Your task to perform on an android device: turn on sleep mode Image 0: 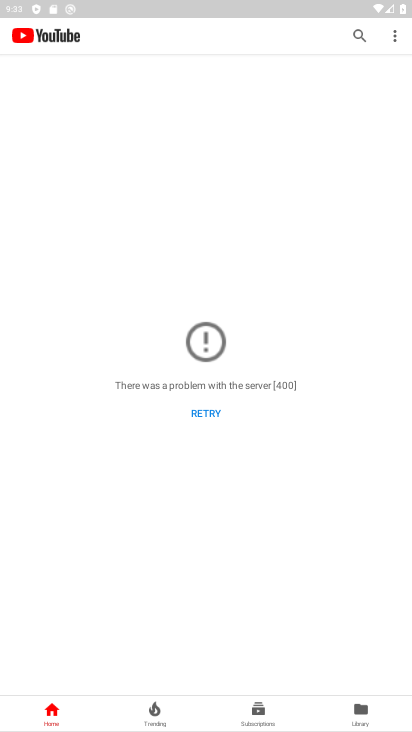
Step 0: press home button
Your task to perform on an android device: turn on sleep mode Image 1: 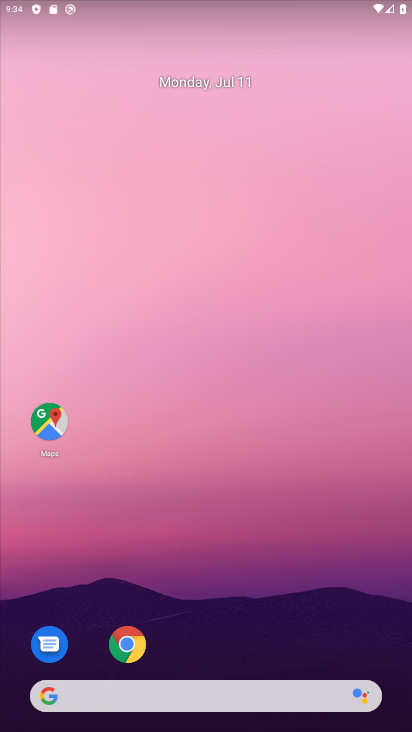
Step 1: drag from (259, 607) to (291, 111)
Your task to perform on an android device: turn on sleep mode Image 2: 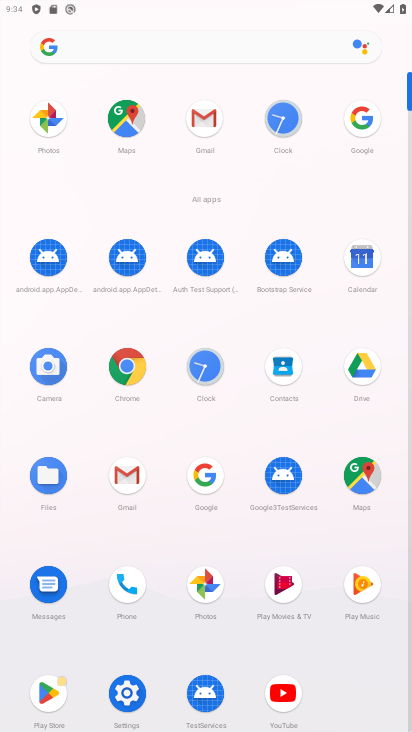
Step 2: click (133, 687)
Your task to perform on an android device: turn on sleep mode Image 3: 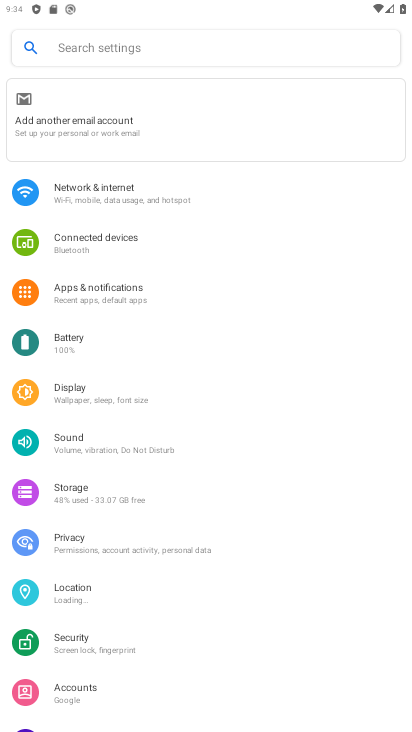
Step 3: click (120, 393)
Your task to perform on an android device: turn on sleep mode Image 4: 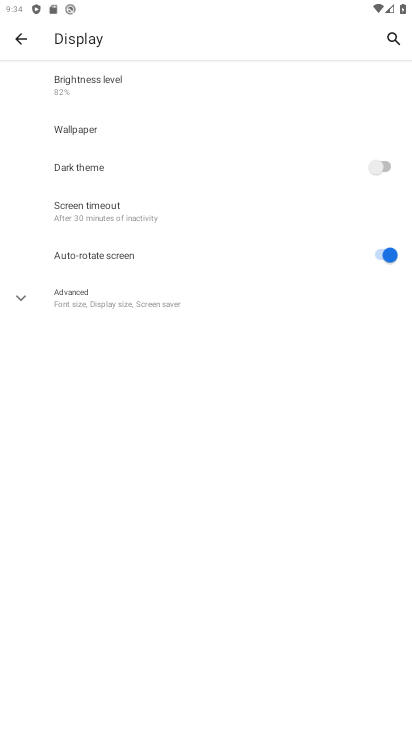
Step 4: click (128, 212)
Your task to perform on an android device: turn on sleep mode Image 5: 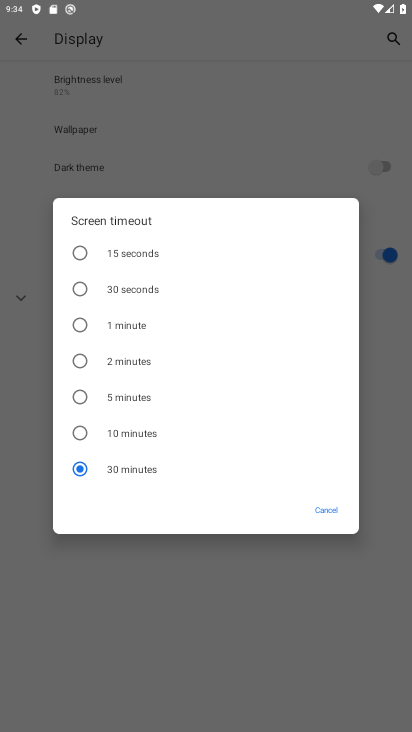
Step 5: task complete